Your task to perform on an android device: Show me productivity apps on the Play Store Image 0: 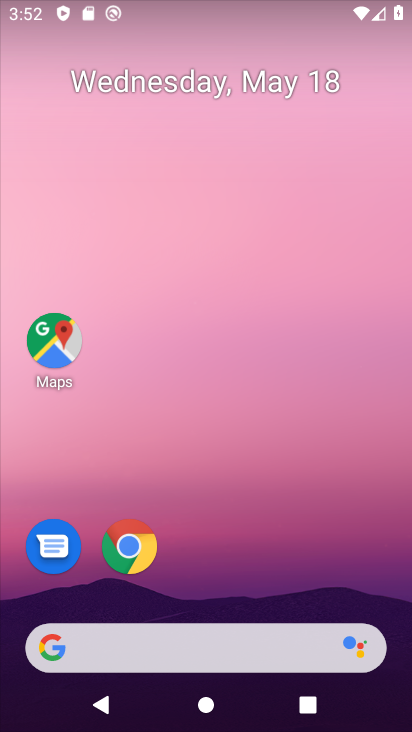
Step 0: drag from (224, 591) to (234, 23)
Your task to perform on an android device: Show me productivity apps on the Play Store Image 1: 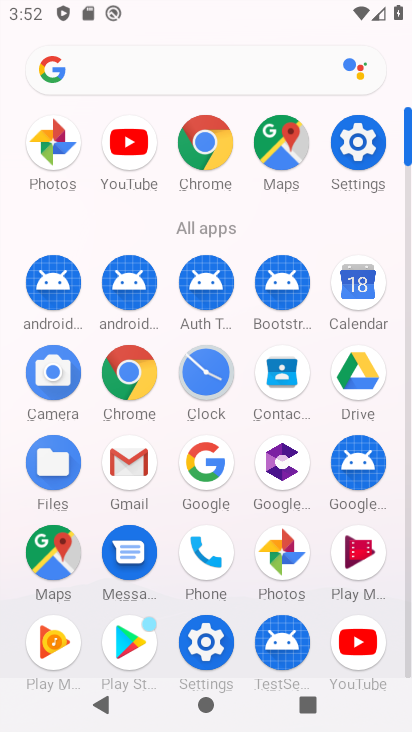
Step 1: click (126, 634)
Your task to perform on an android device: Show me productivity apps on the Play Store Image 2: 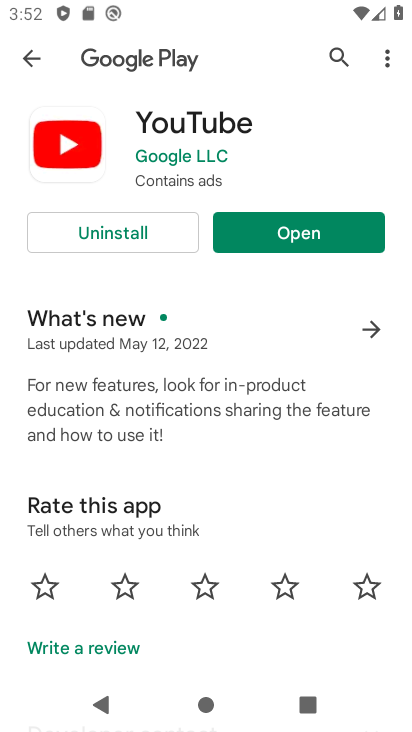
Step 2: click (37, 58)
Your task to perform on an android device: Show me productivity apps on the Play Store Image 3: 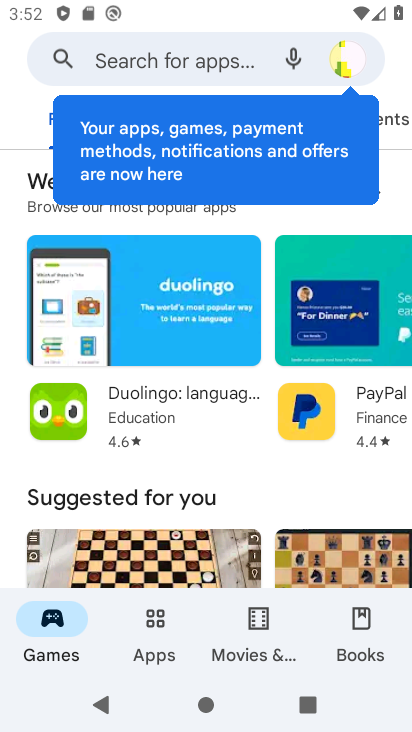
Step 3: click (150, 640)
Your task to perform on an android device: Show me productivity apps on the Play Store Image 4: 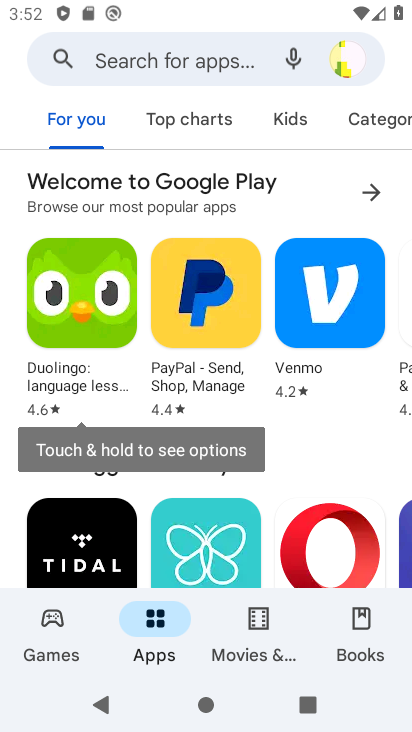
Step 4: click (361, 118)
Your task to perform on an android device: Show me productivity apps on the Play Store Image 5: 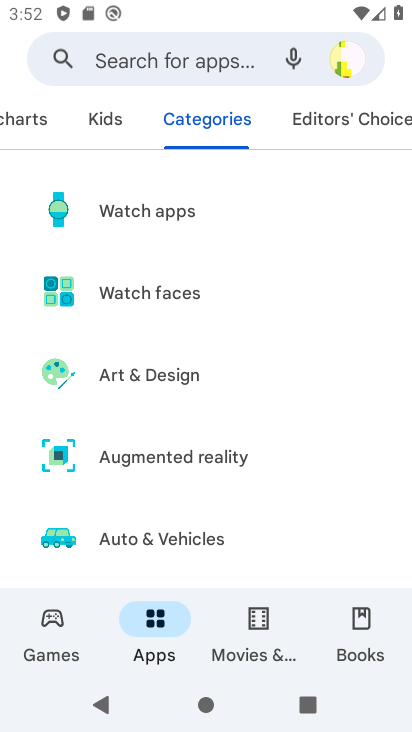
Step 5: drag from (140, 457) to (207, 43)
Your task to perform on an android device: Show me productivity apps on the Play Store Image 6: 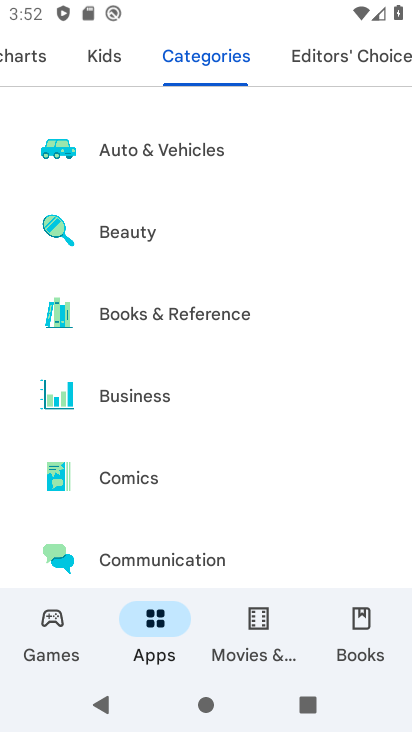
Step 6: drag from (159, 486) to (229, 160)
Your task to perform on an android device: Show me productivity apps on the Play Store Image 7: 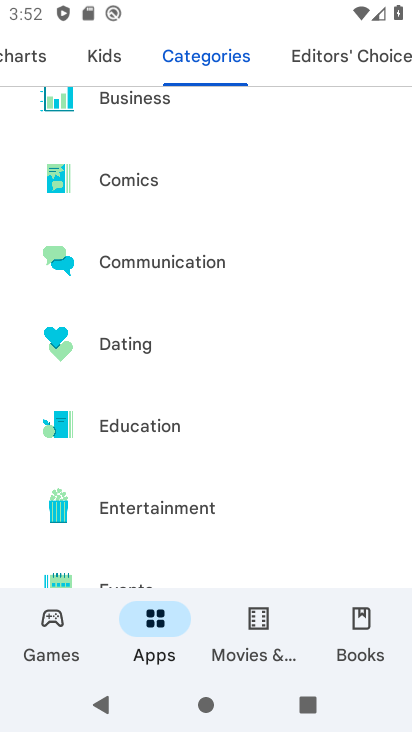
Step 7: drag from (180, 533) to (223, 215)
Your task to perform on an android device: Show me productivity apps on the Play Store Image 8: 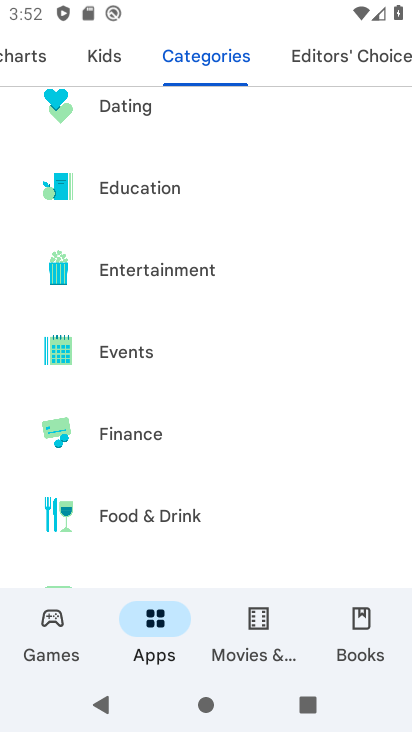
Step 8: drag from (196, 551) to (247, 223)
Your task to perform on an android device: Show me productivity apps on the Play Store Image 9: 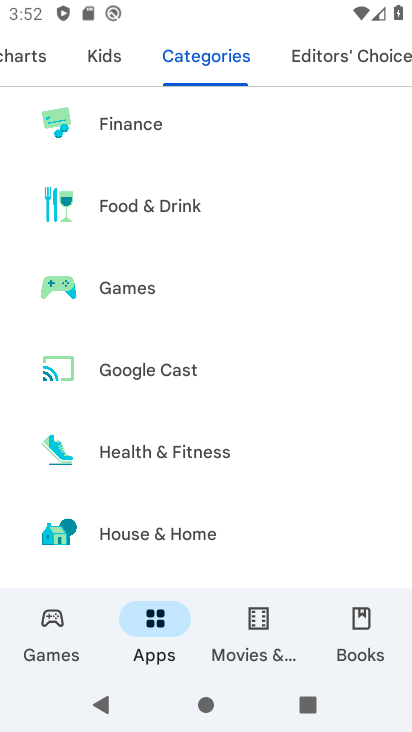
Step 9: drag from (227, 498) to (231, 3)
Your task to perform on an android device: Show me productivity apps on the Play Store Image 10: 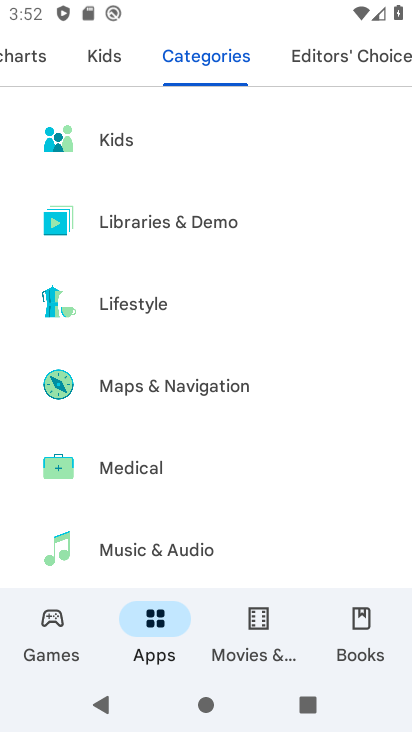
Step 10: drag from (196, 412) to (230, 17)
Your task to perform on an android device: Show me productivity apps on the Play Store Image 11: 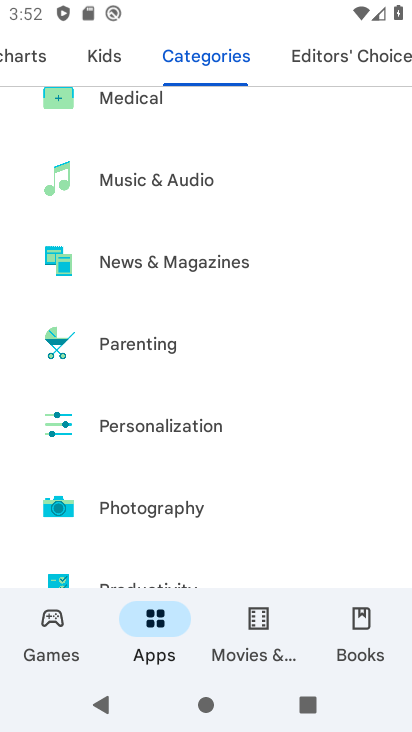
Step 11: drag from (174, 530) to (226, 170)
Your task to perform on an android device: Show me productivity apps on the Play Store Image 12: 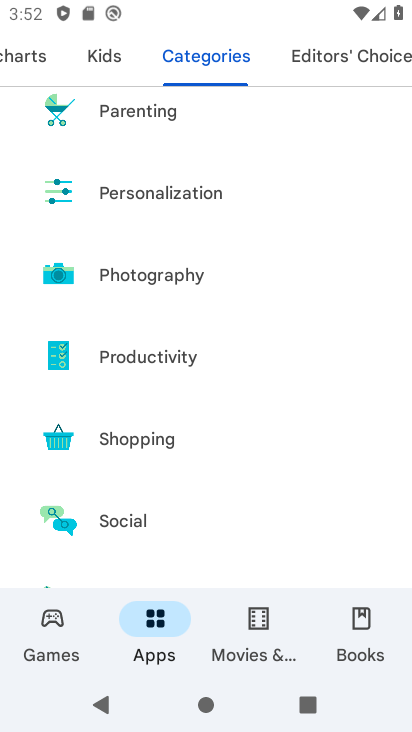
Step 12: click (165, 366)
Your task to perform on an android device: Show me productivity apps on the Play Store Image 13: 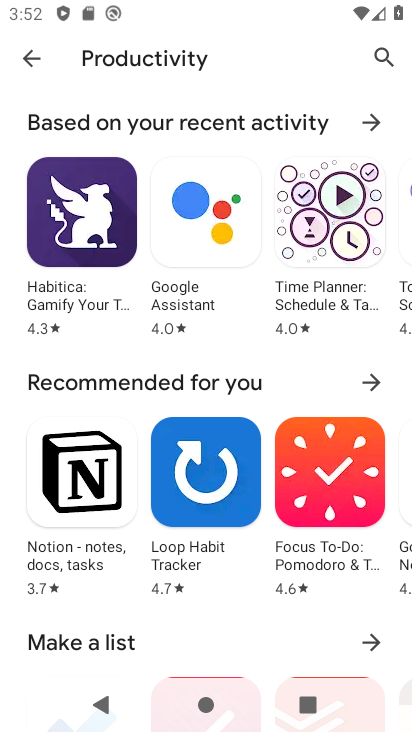
Step 13: task complete